Your task to perform on an android device: Go to Google Image 0: 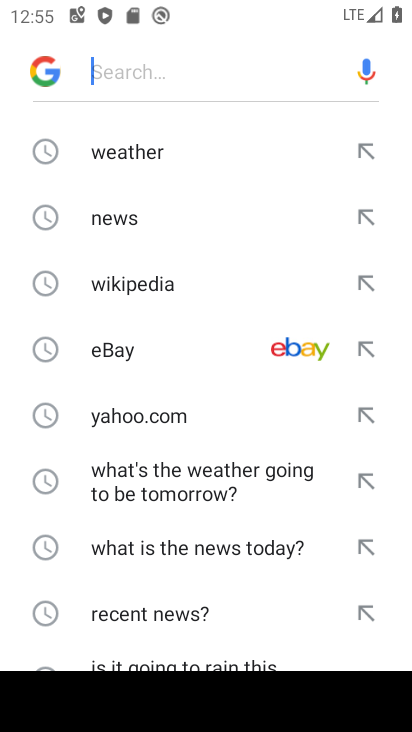
Step 0: press home button
Your task to perform on an android device: Go to Google Image 1: 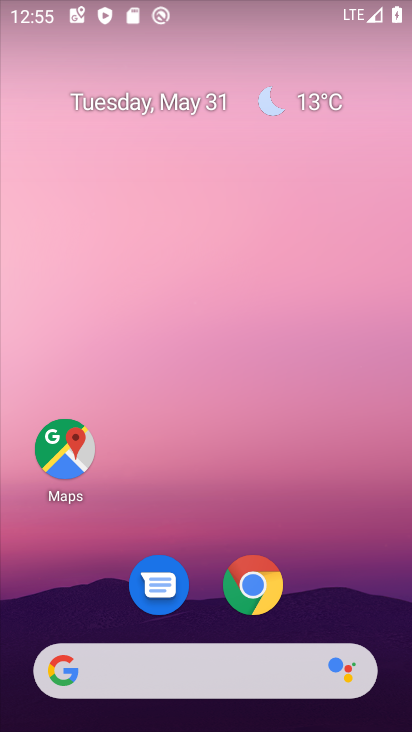
Step 1: click (175, 674)
Your task to perform on an android device: Go to Google Image 2: 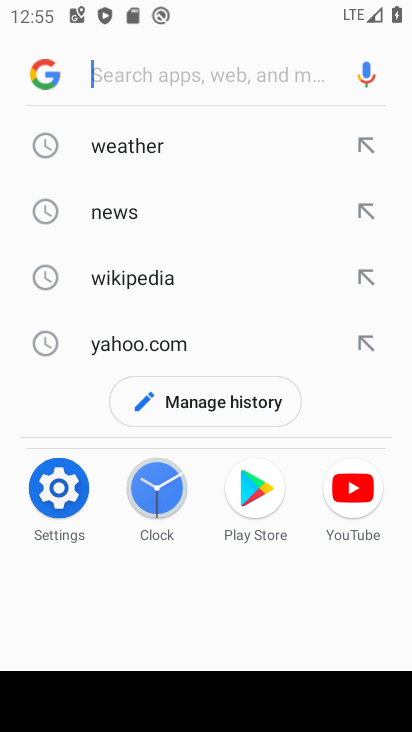
Step 2: click (44, 73)
Your task to perform on an android device: Go to Google Image 3: 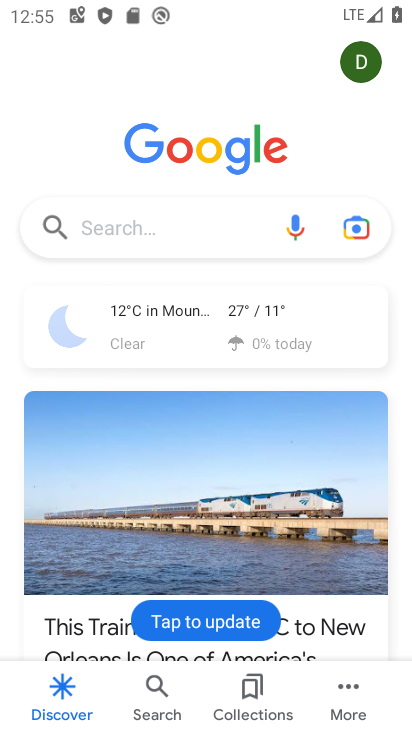
Step 3: task complete